Your task to perform on an android device: turn off priority inbox in the gmail app Image 0: 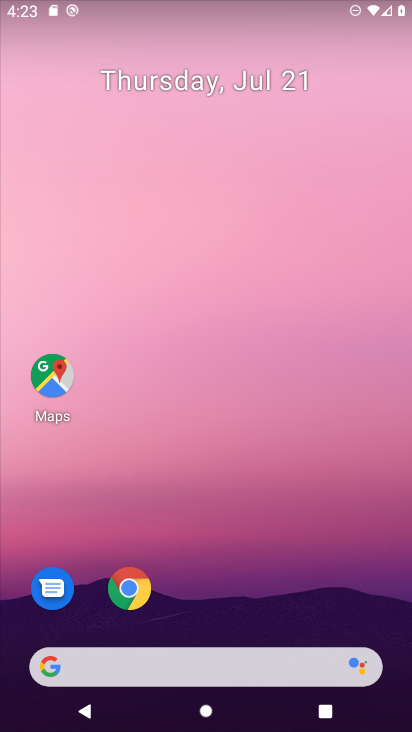
Step 0: drag from (244, 671) to (322, 156)
Your task to perform on an android device: turn off priority inbox in the gmail app Image 1: 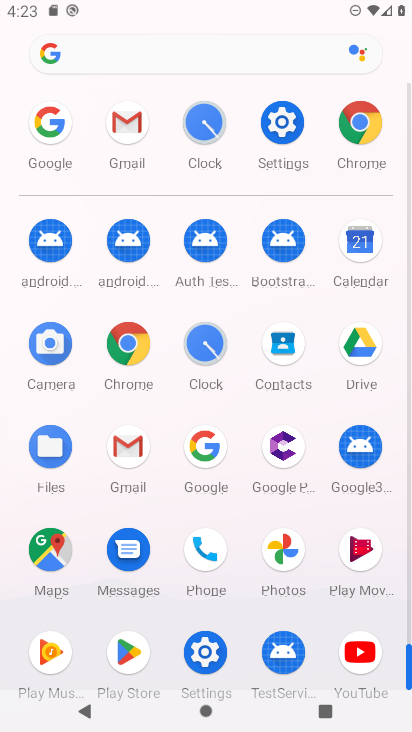
Step 1: click (136, 456)
Your task to perform on an android device: turn off priority inbox in the gmail app Image 2: 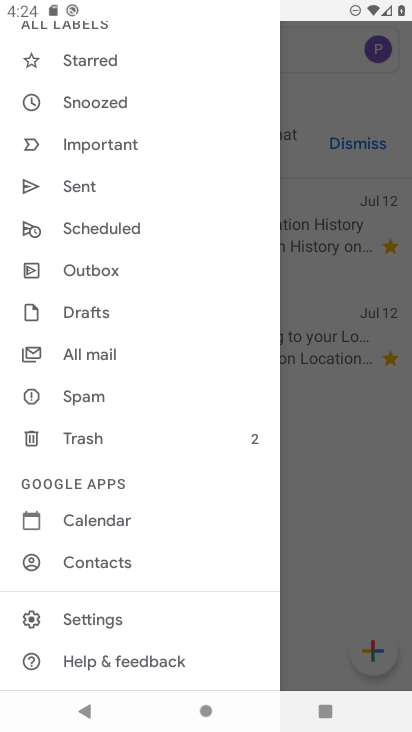
Step 2: click (106, 621)
Your task to perform on an android device: turn off priority inbox in the gmail app Image 3: 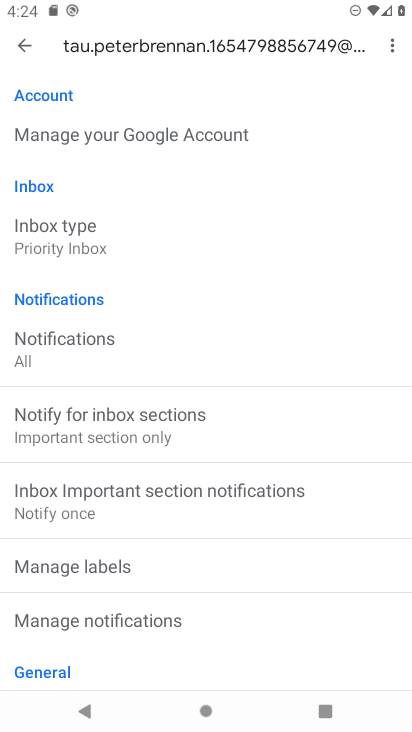
Step 3: drag from (140, 626) to (192, 213)
Your task to perform on an android device: turn off priority inbox in the gmail app Image 4: 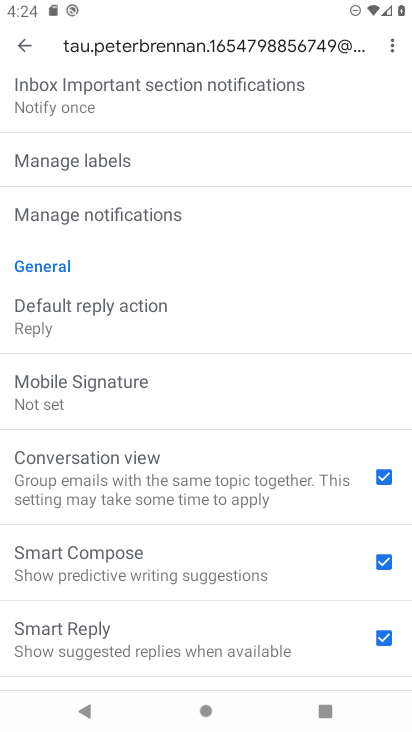
Step 4: drag from (128, 390) to (153, 721)
Your task to perform on an android device: turn off priority inbox in the gmail app Image 5: 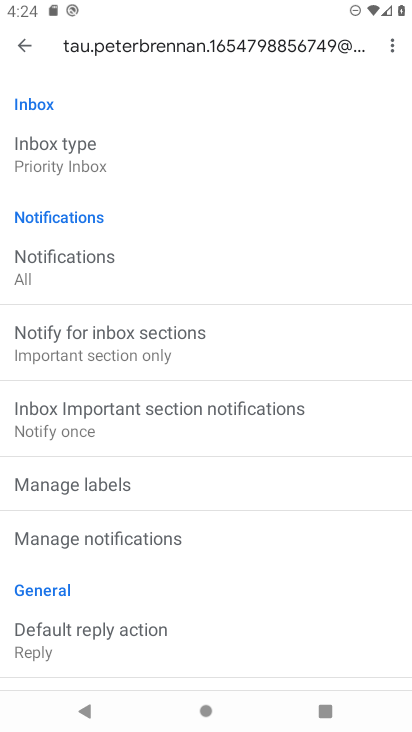
Step 5: click (74, 148)
Your task to perform on an android device: turn off priority inbox in the gmail app Image 6: 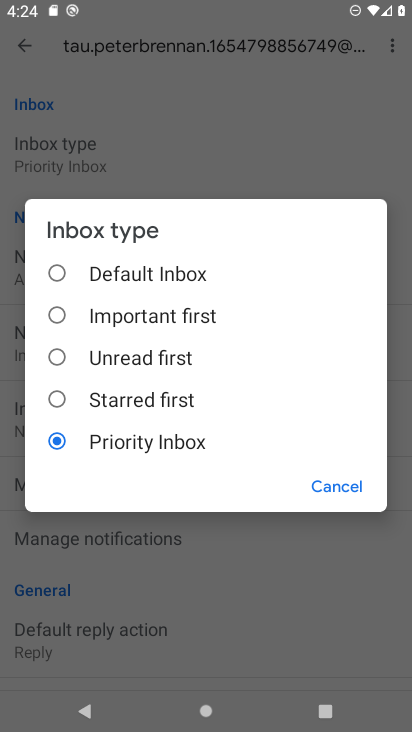
Step 6: click (53, 285)
Your task to perform on an android device: turn off priority inbox in the gmail app Image 7: 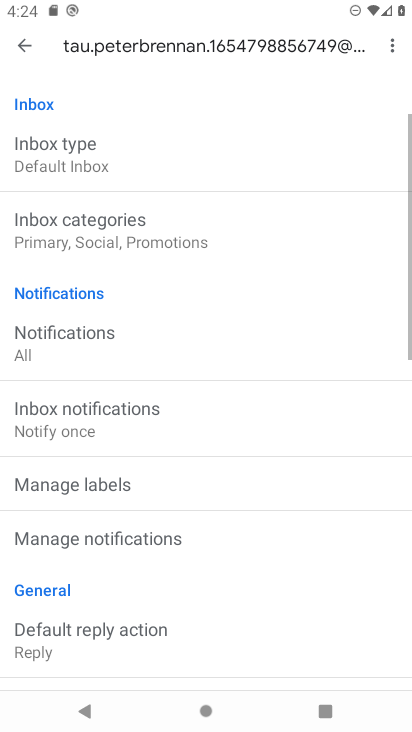
Step 7: task complete